Your task to perform on an android device: toggle improve location accuracy Image 0: 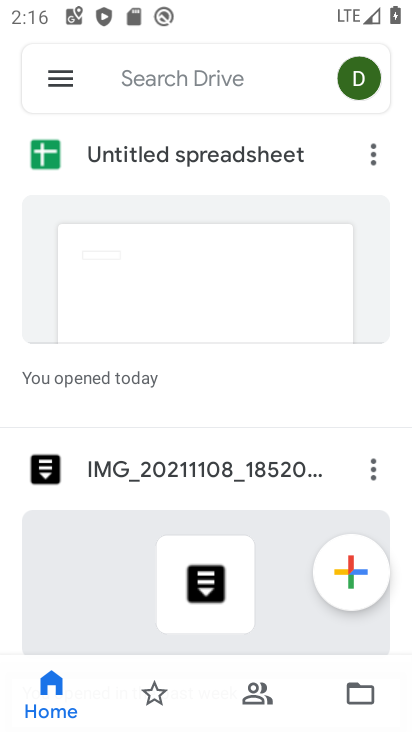
Step 0: press home button
Your task to perform on an android device: toggle improve location accuracy Image 1: 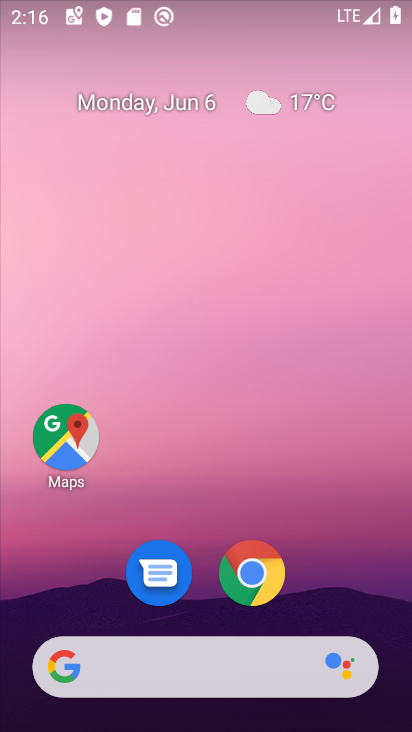
Step 1: drag from (360, 590) to (373, 199)
Your task to perform on an android device: toggle improve location accuracy Image 2: 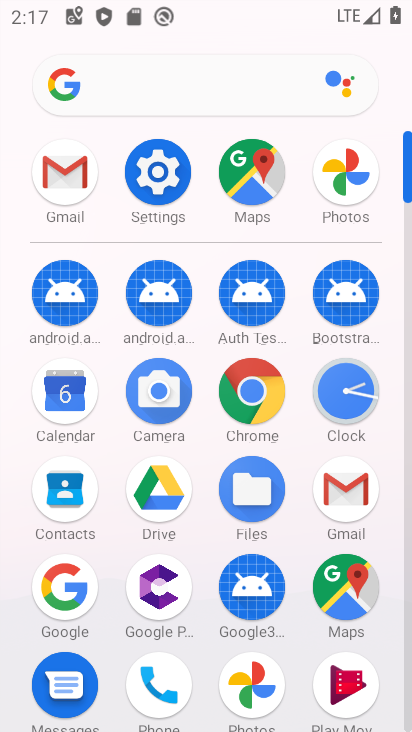
Step 2: click (169, 166)
Your task to perform on an android device: toggle improve location accuracy Image 3: 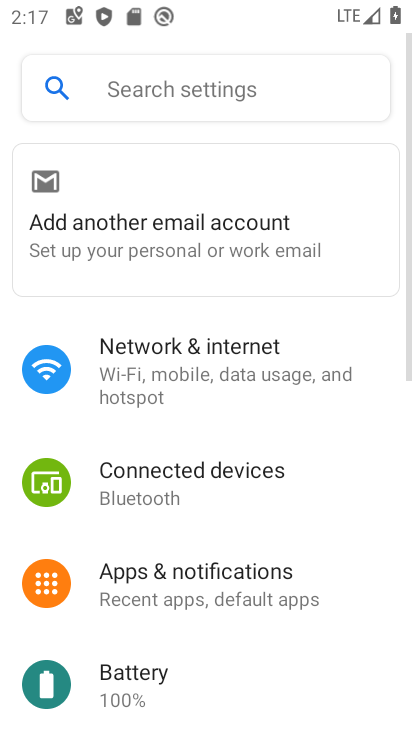
Step 3: drag from (351, 458) to (349, 285)
Your task to perform on an android device: toggle improve location accuracy Image 4: 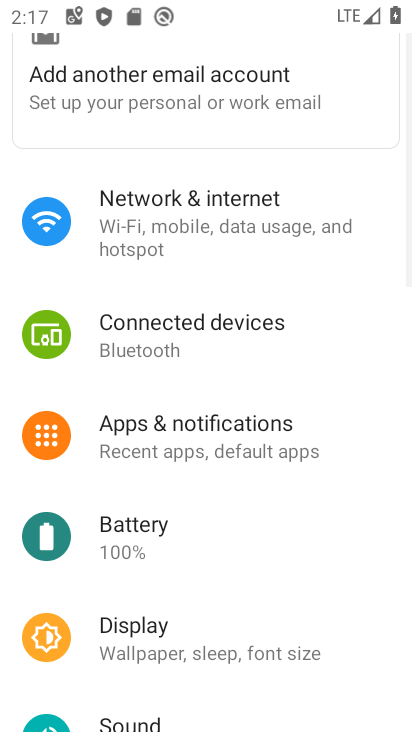
Step 4: drag from (331, 524) to (331, 342)
Your task to perform on an android device: toggle improve location accuracy Image 5: 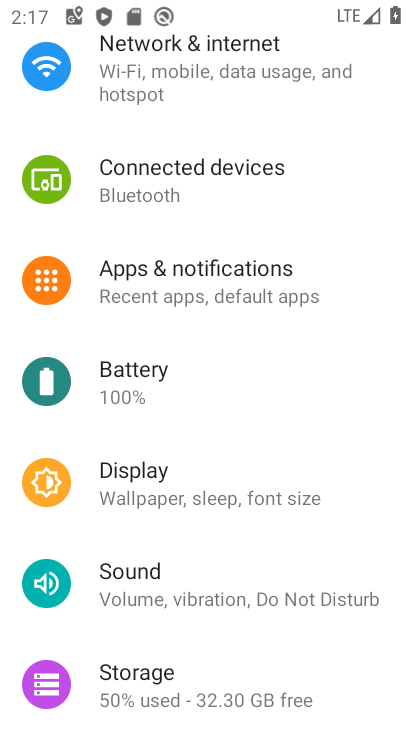
Step 5: drag from (342, 484) to (346, 321)
Your task to perform on an android device: toggle improve location accuracy Image 6: 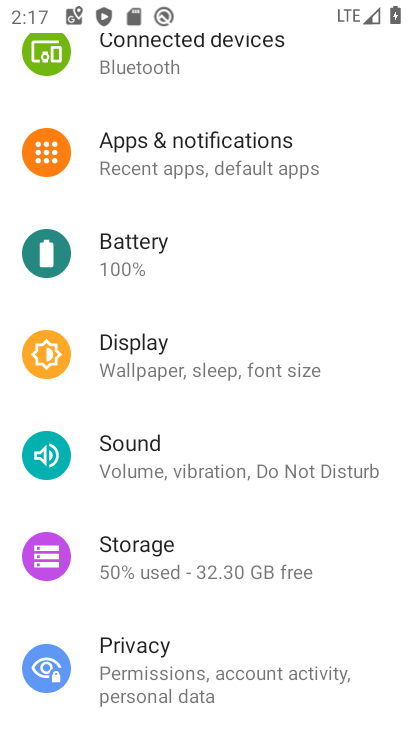
Step 6: drag from (350, 520) to (355, 377)
Your task to perform on an android device: toggle improve location accuracy Image 7: 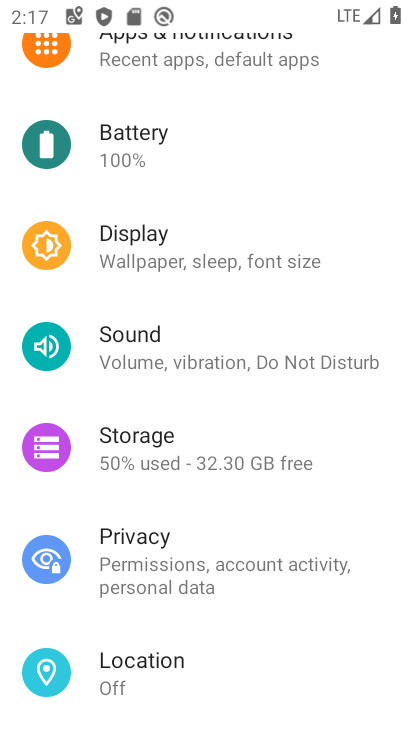
Step 7: click (209, 673)
Your task to perform on an android device: toggle improve location accuracy Image 8: 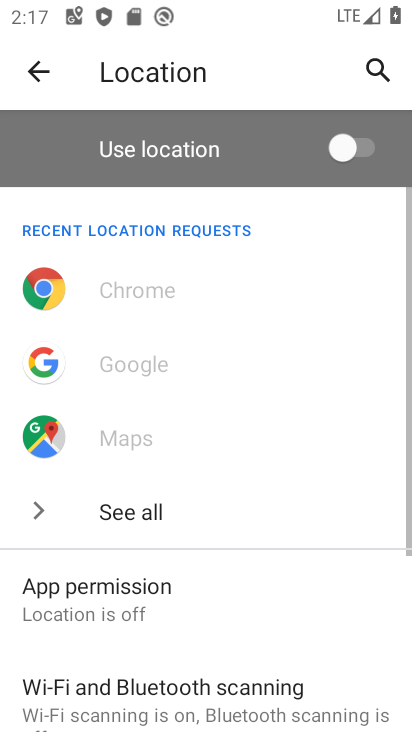
Step 8: drag from (318, 606) to (326, 345)
Your task to perform on an android device: toggle improve location accuracy Image 9: 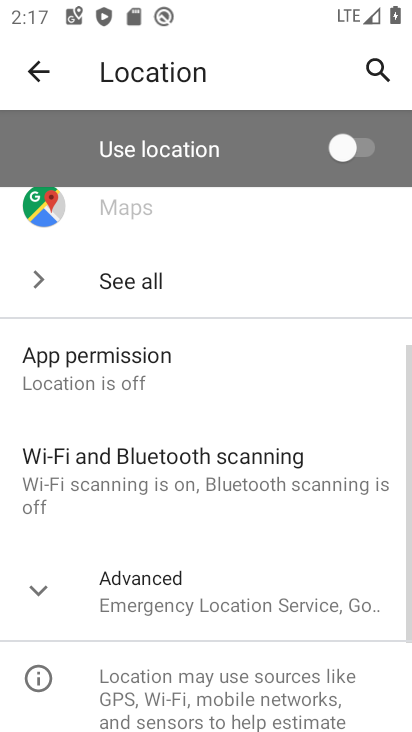
Step 9: click (275, 620)
Your task to perform on an android device: toggle improve location accuracy Image 10: 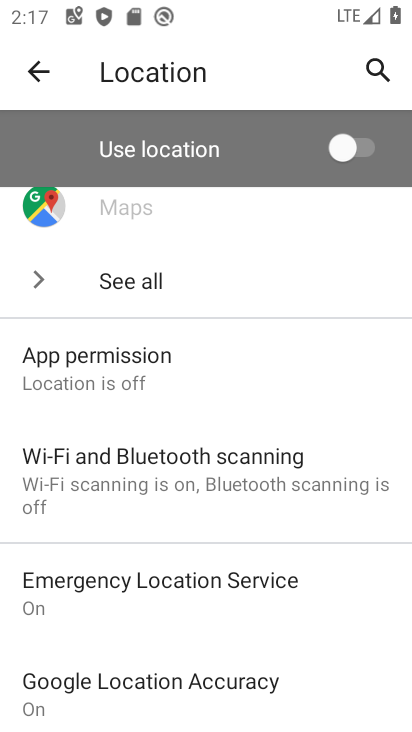
Step 10: drag from (349, 622) to (346, 407)
Your task to perform on an android device: toggle improve location accuracy Image 11: 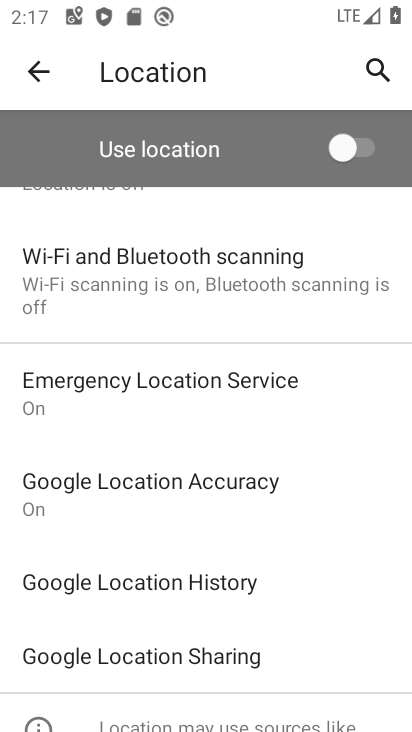
Step 11: click (191, 502)
Your task to perform on an android device: toggle improve location accuracy Image 12: 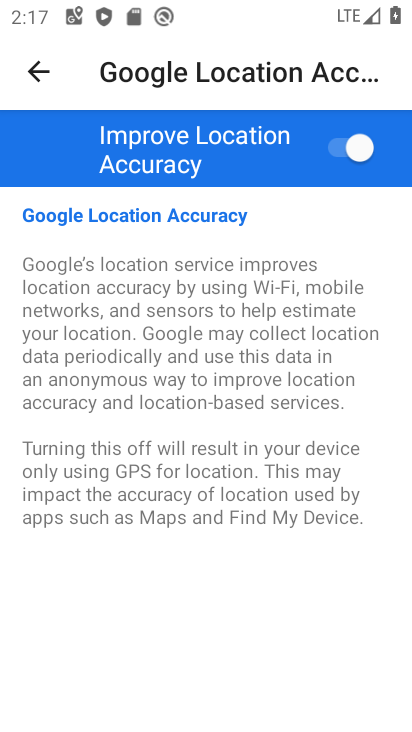
Step 12: click (346, 153)
Your task to perform on an android device: toggle improve location accuracy Image 13: 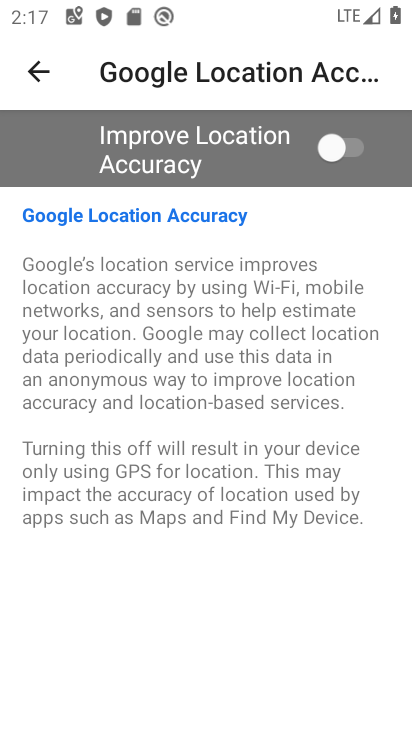
Step 13: task complete